Your task to perform on an android device: clear history in the chrome app Image 0: 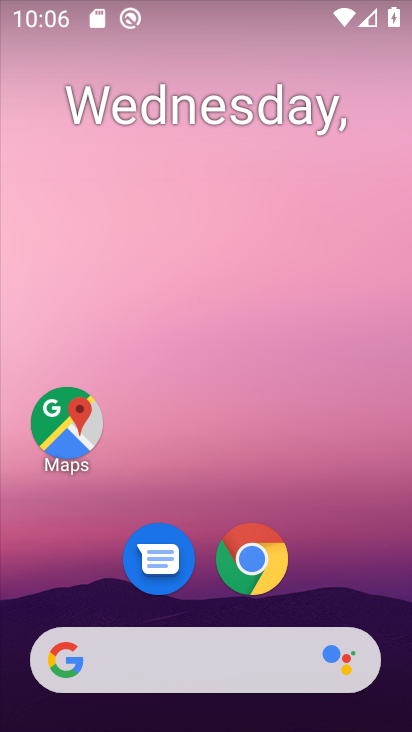
Step 0: drag from (355, 522) to (240, 7)
Your task to perform on an android device: clear history in the chrome app Image 1: 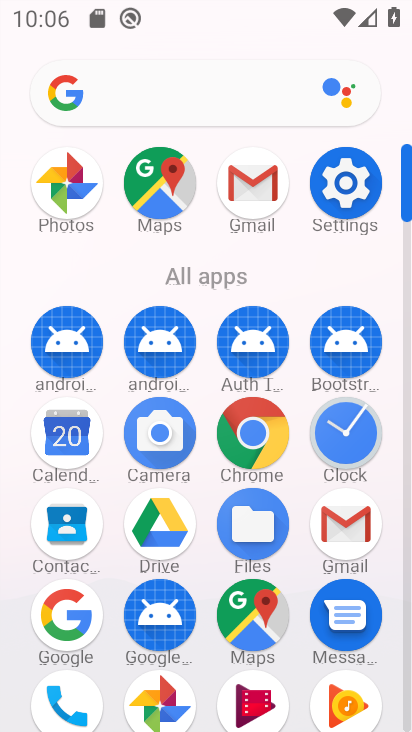
Step 1: click (255, 420)
Your task to perform on an android device: clear history in the chrome app Image 2: 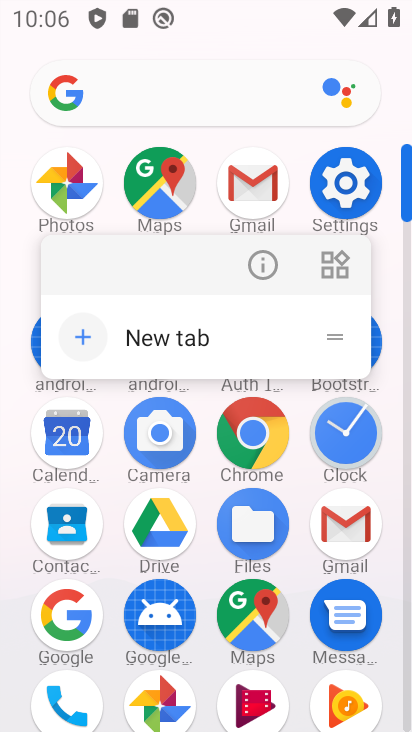
Step 2: click (243, 418)
Your task to perform on an android device: clear history in the chrome app Image 3: 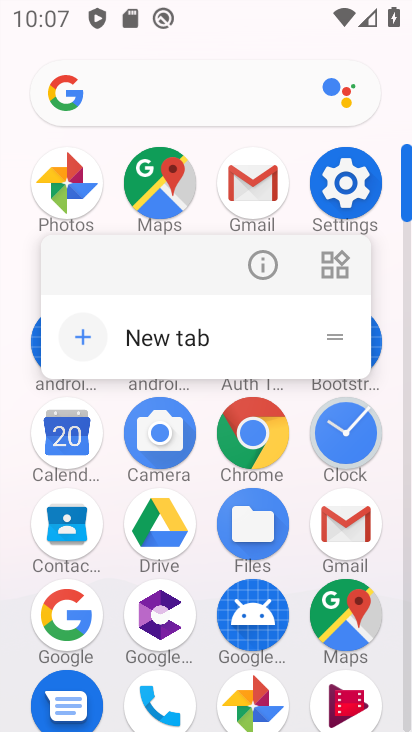
Step 3: click (250, 430)
Your task to perform on an android device: clear history in the chrome app Image 4: 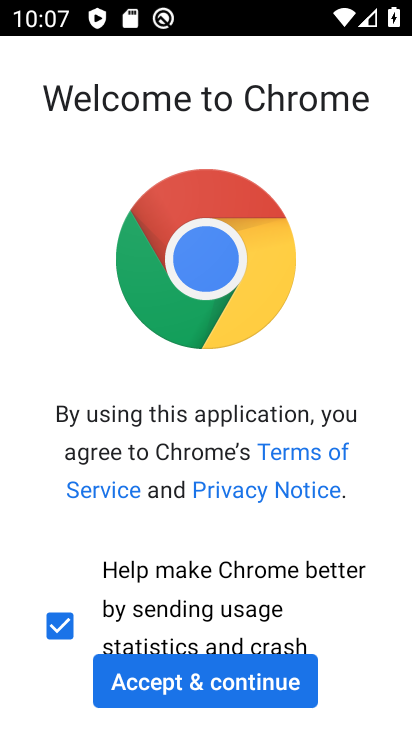
Step 4: click (180, 686)
Your task to perform on an android device: clear history in the chrome app Image 5: 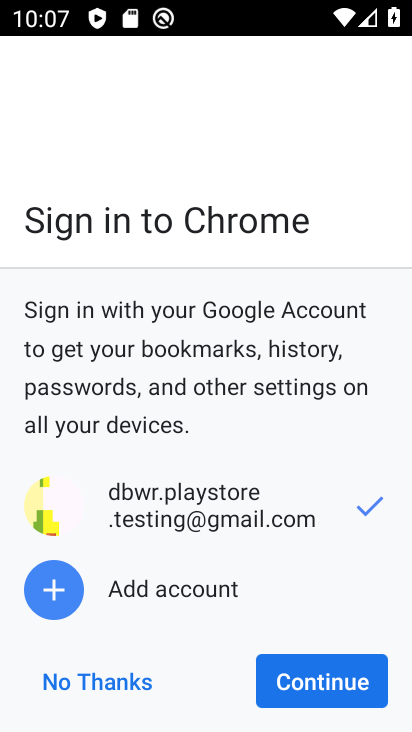
Step 5: click (361, 683)
Your task to perform on an android device: clear history in the chrome app Image 6: 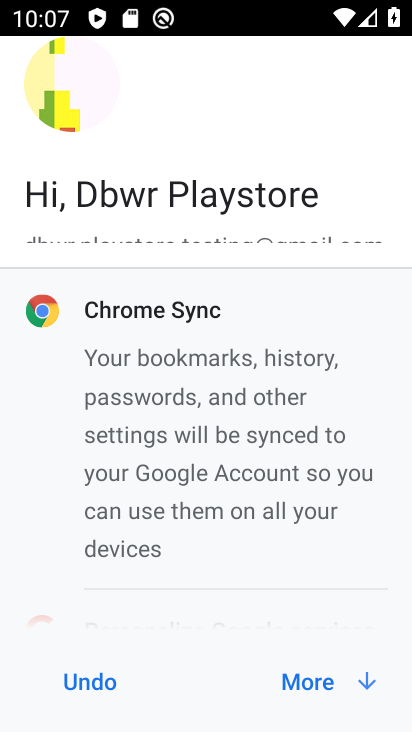
Step 6: click (361, 683)
Your task to perform on an android device: clear history in the chrome app Image 7: 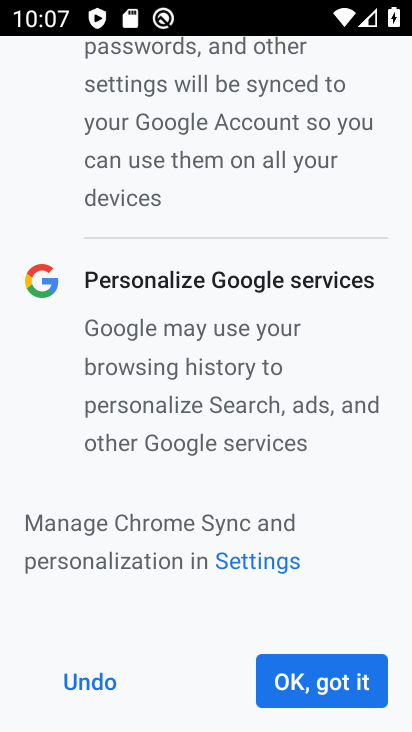
Step 7: click (361, 683)
Your task to perform on an android device: clear history in the chrome app Image 8: 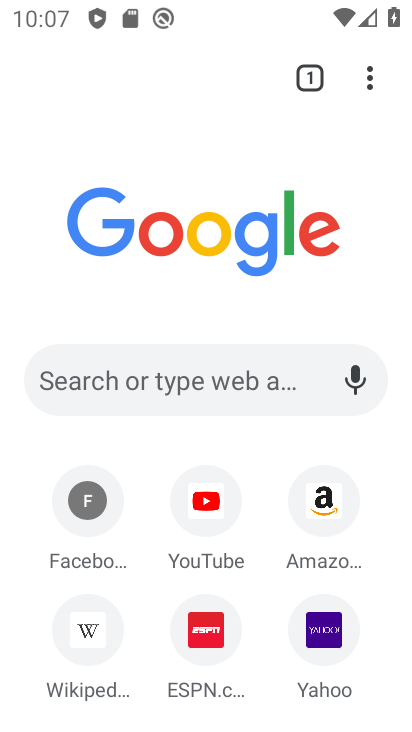
Step 8: task complete